Your task to perform on an android device: star an email in the gmail app Image 0: 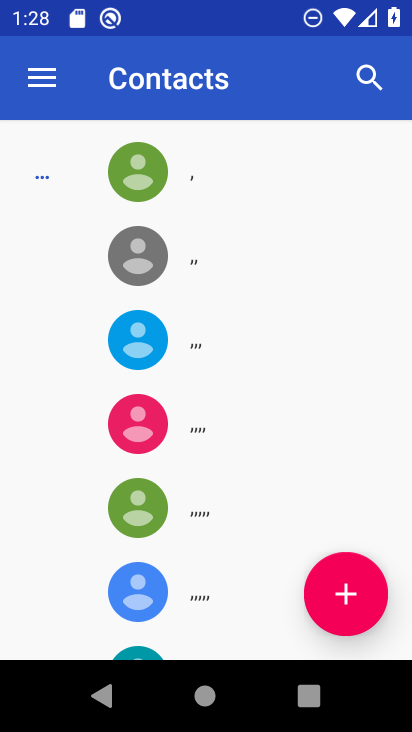
Step 0: press home button
Your task to perform on an android device: star an email in the gmail app Image 1: 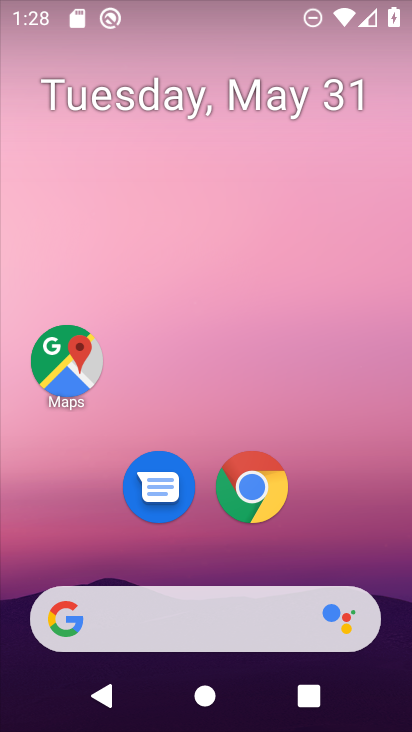
Step 1: drag from (89, 552) to (189, 5)
Your task to perform on an android device: star an email in the gmail app Image 2: 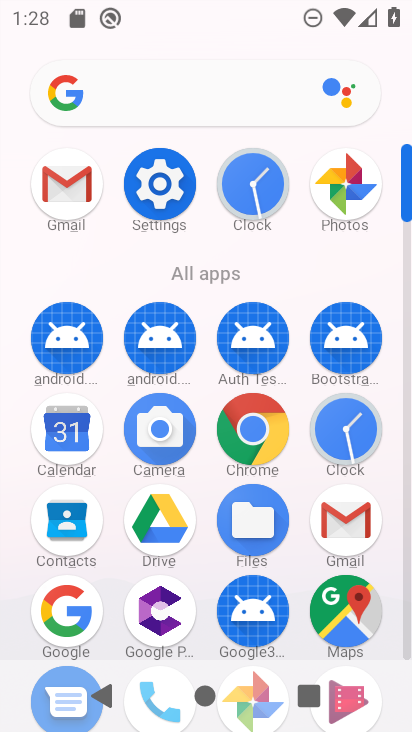
Step 2: click (342, 539)
Your task to perform on an android device: star an email in the gmail app Image 3: 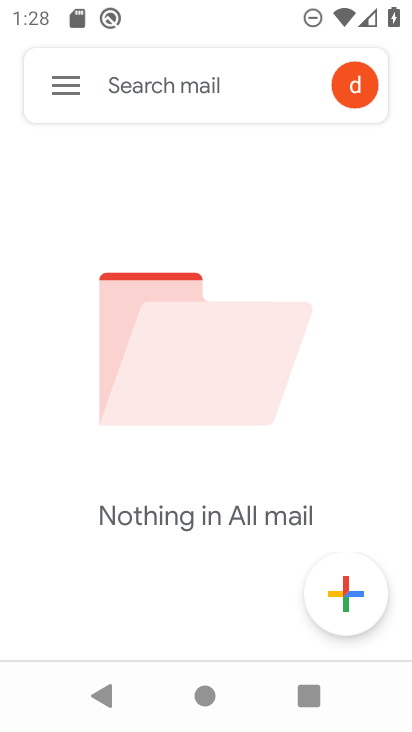
Step 3: click (60, 86)
Your task to perform on an android device: star an email in the gmail app Image 4: 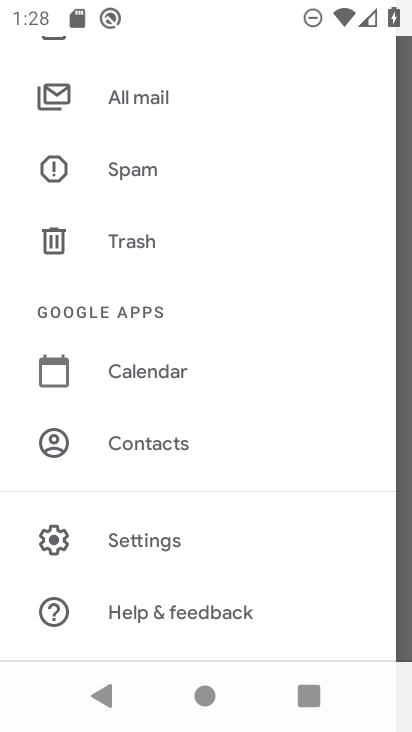
Step 4: click (190, 117)
Your task to perform on an android device: star an email in the gmail app Image 5: 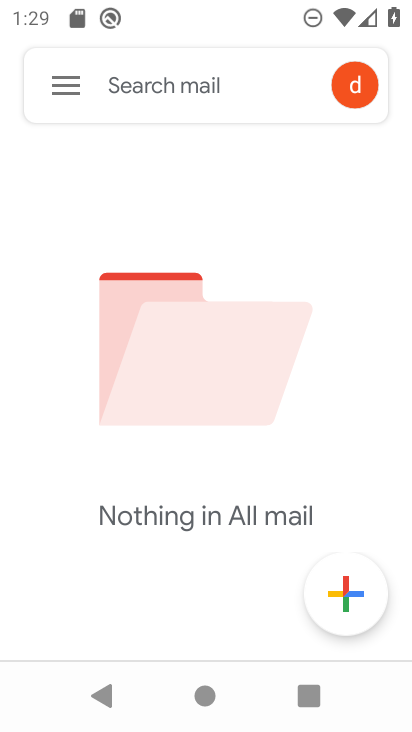
Step 5: task complete